Your task to perform on an android device: Open Google Chrome and open the bookmarks view Image 0: 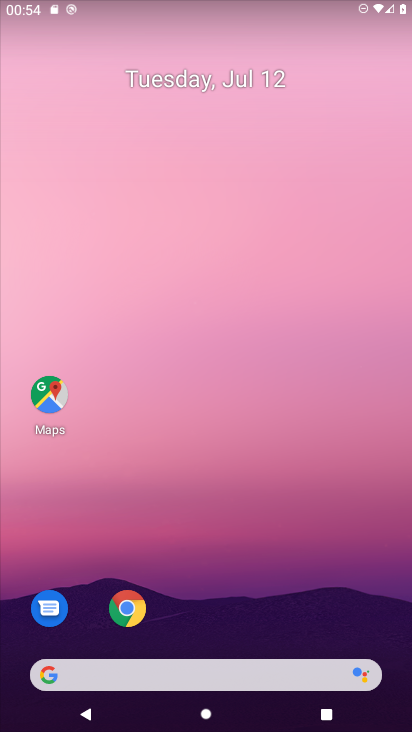
Step 0: drag from (241, 621) to (62, 666)
Your task to perform on an android device: Open Google Chrome and open the bookmarks view Image 1: 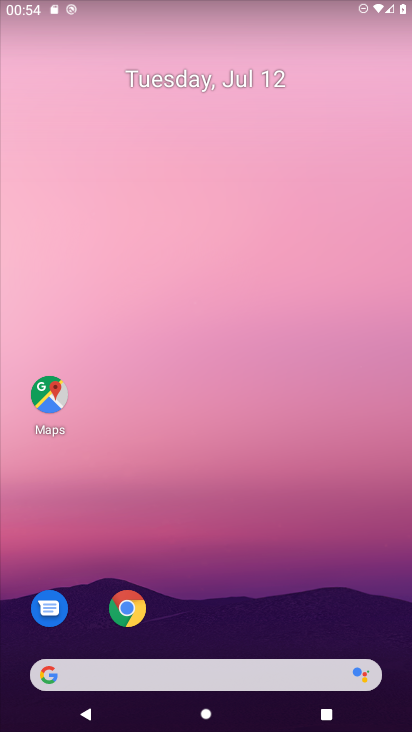
Step 1: click (138, 609)
Your task to perform on an android device: Open Google Chrome and open the bookmarks view Image 2: 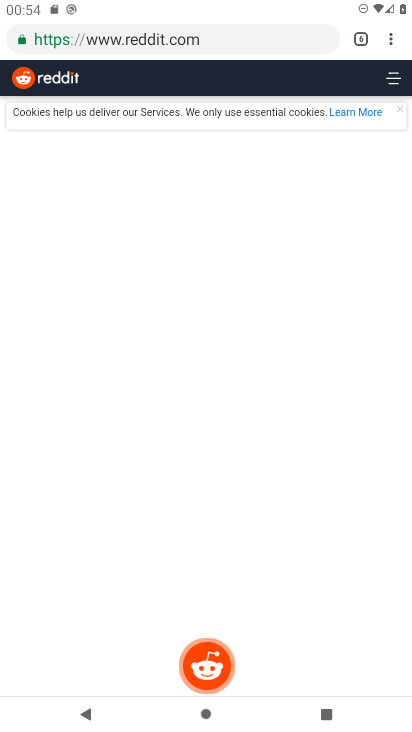
Step 2: click (391, 26)
Your task to perform on an android device: Open Google Chrome and open the bookmarks view Image 3: 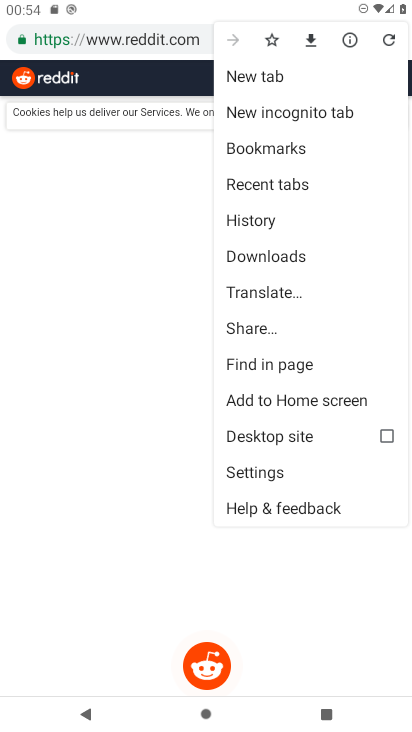
Step 3: click (274, 156)
Your task to perform on an android device: Open Google Chrome and open the bookmarks view Image 4: 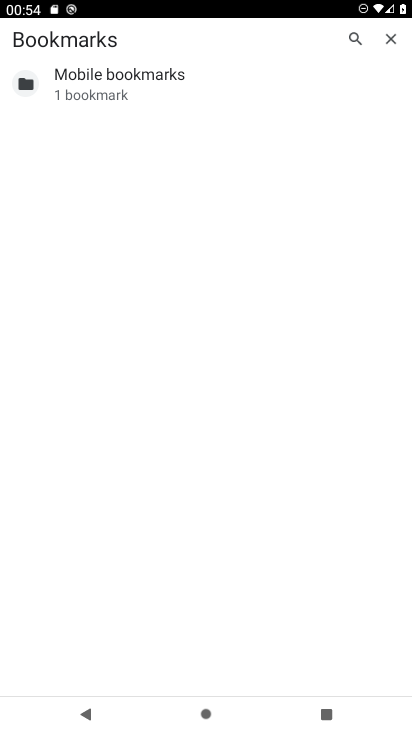
Step 4: task complete